Your task to perform on an android device: Open the map Image 0: 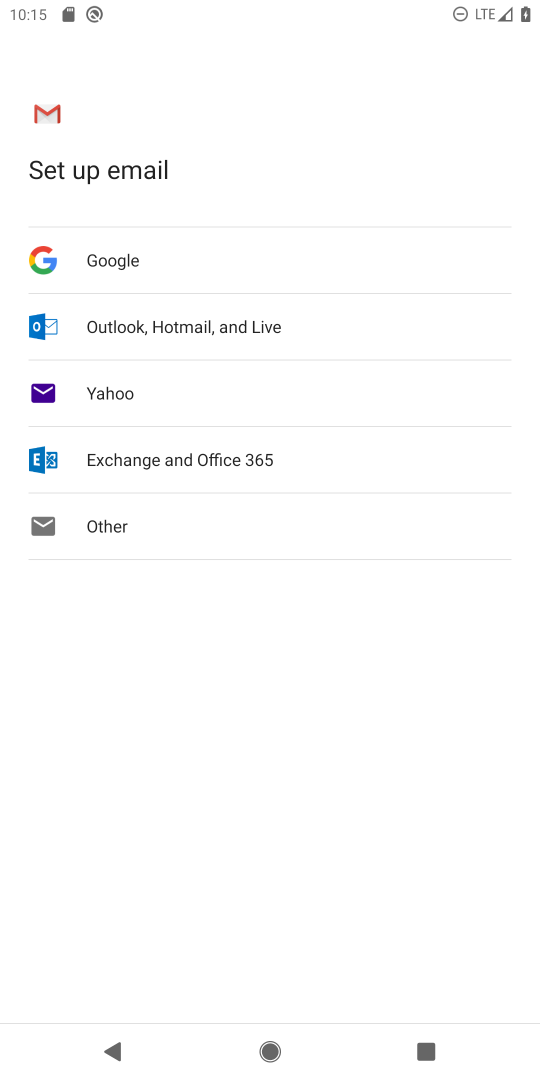
Step 0: press home button
Your task to perform on an android device: Open the map Image 1: 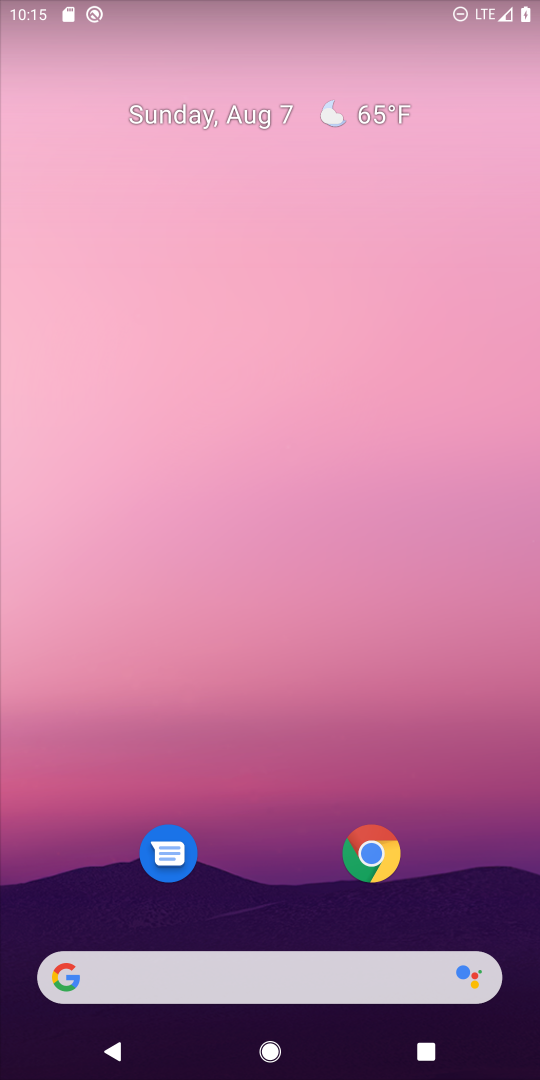
Step 1: drag from (274, 953) to (267, 211)
Your task to perform on an android device: Open the map Image 2: 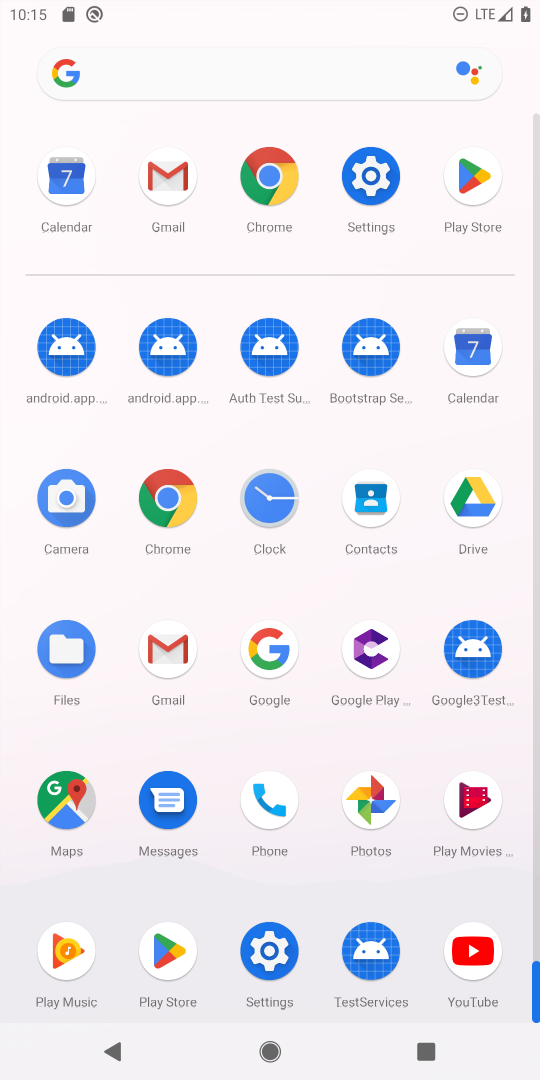
Step 2: click (84, 794)
Your task to perform on an android device: Open the map Image 3: 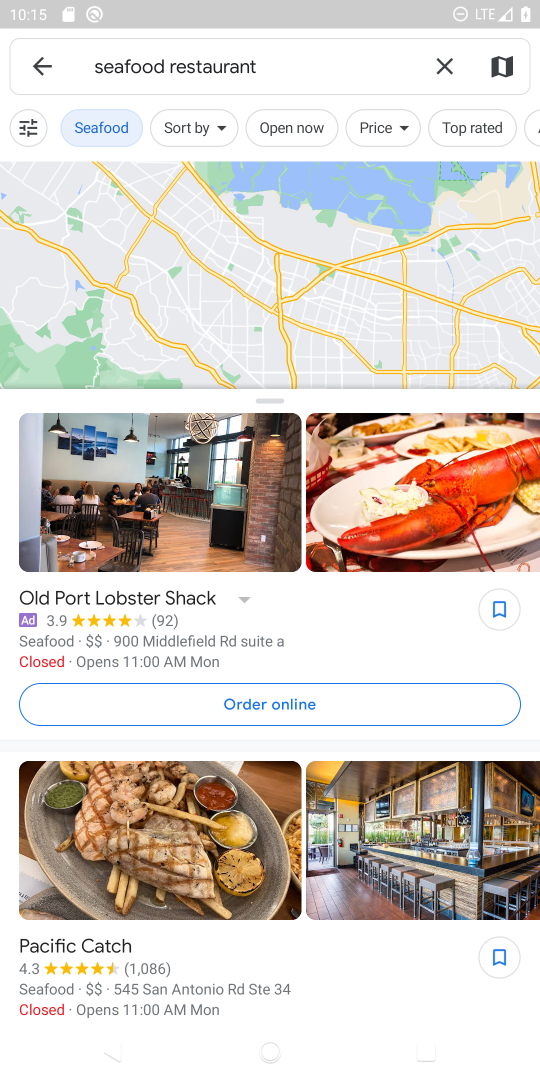
Step 3: click (443, 54)
Your task to perform on an android device: Open the map Image 4: 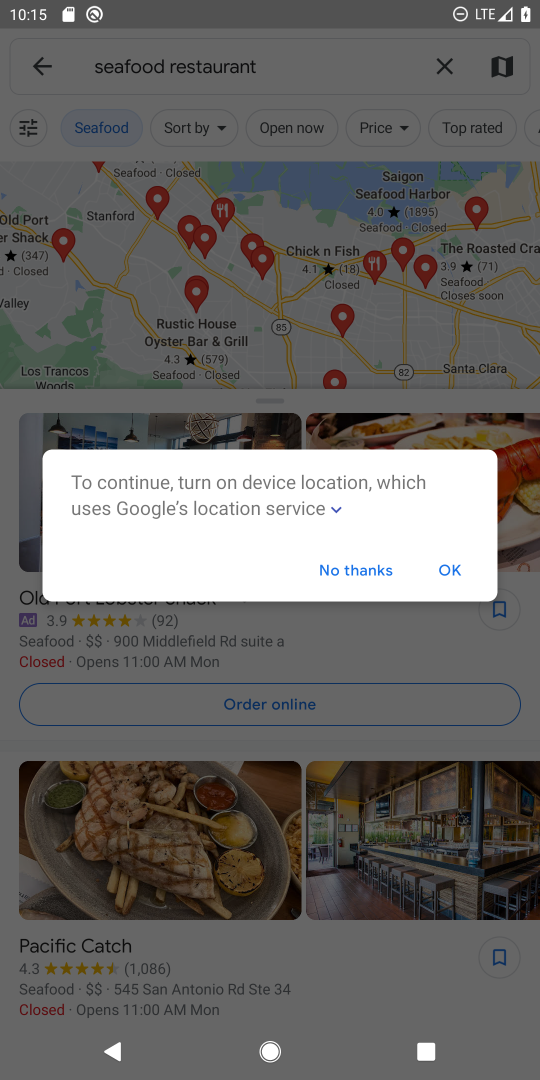
Step 4: click (474, 557)
Your task to perform on an android device: Open the map Image 5: 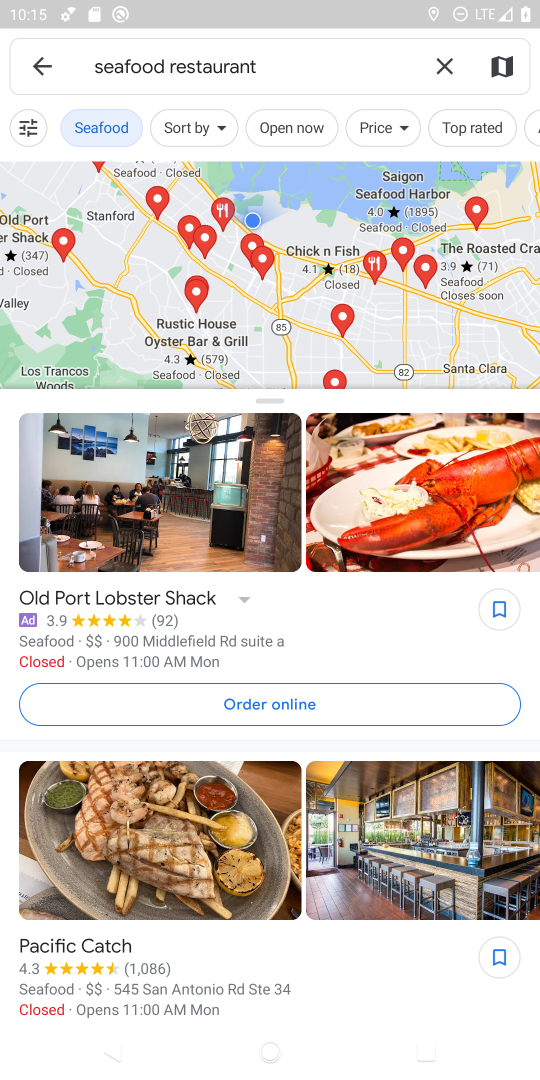
Step 5: click (440, 59)
Your task to perform on an android device: Open the map Image 6: 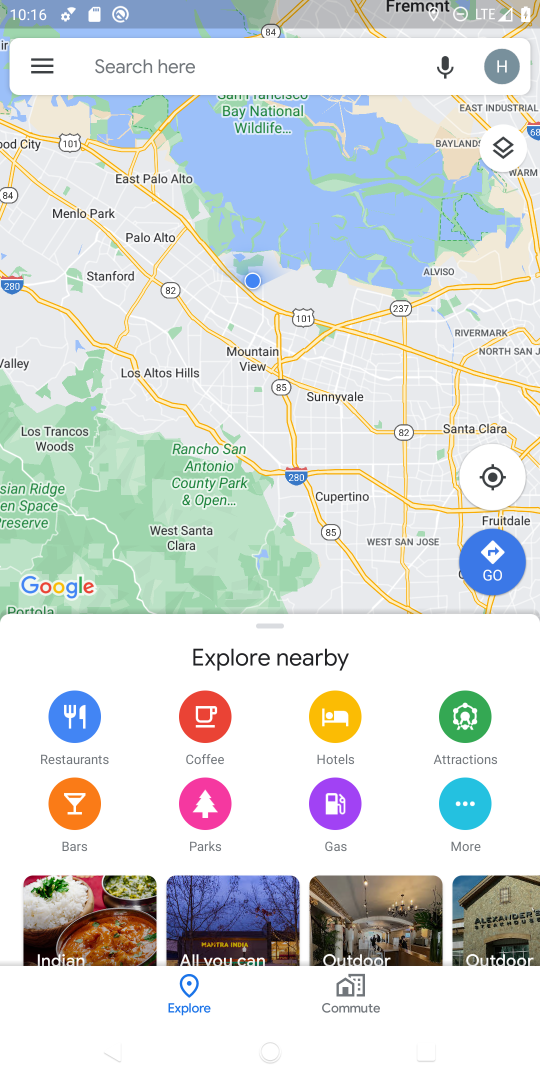
Step 6: task complete